Your task to perform on an android device: Open Google Maps and go to "Timeline" Image 0: 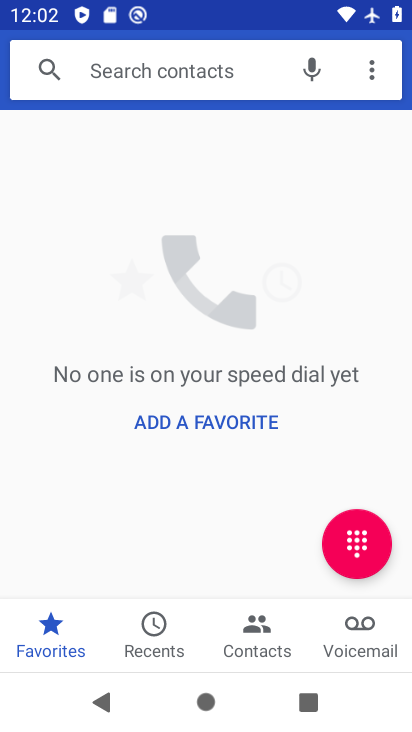
Step 0: press home button
Your task to perform on an android device: Open Google Maps and go to "Timeline" Image 1: 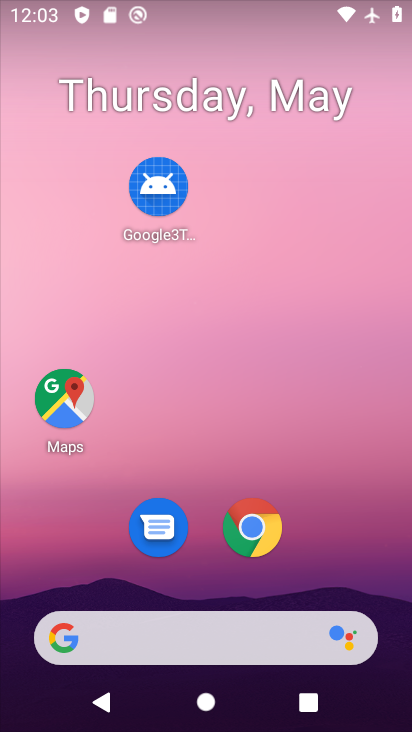
Step 1: drag from (206, 594) to (232, 3)
Your task to perform on an android device: Open Google Maps and go to "Timeline" Image 2: 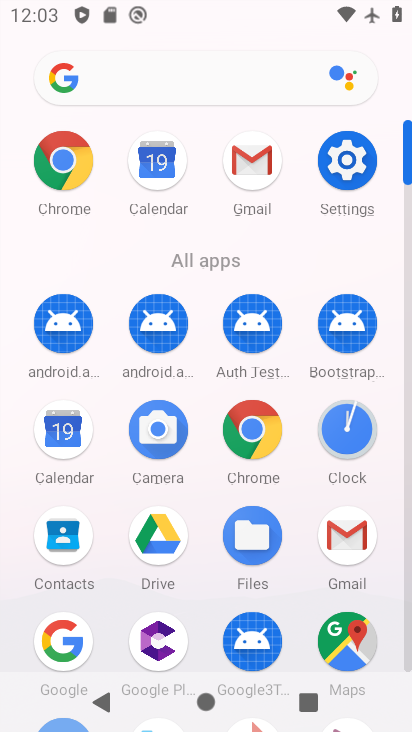
Step 2: click (333, 652)
Your task to perform on an android device: Open Google Maps and go to "Timeline" Image 3: 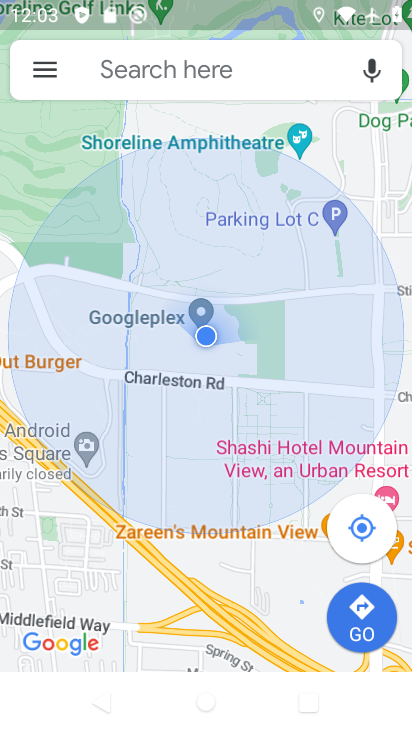
Step 3: click (43, 70)
Your task to perform on an android device: Open Google Maps and go to "Timeline" Image 4: 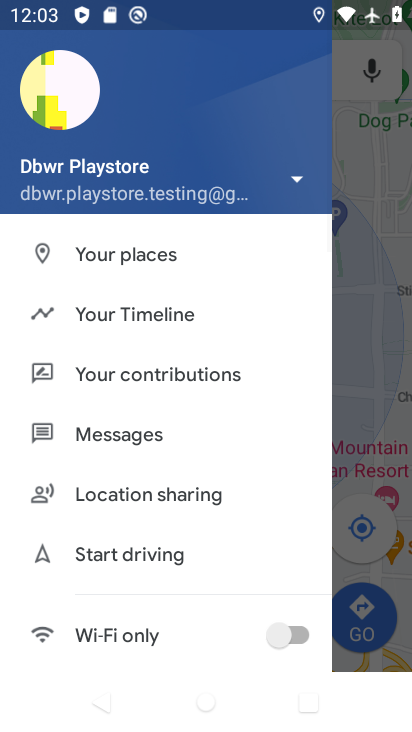
Step 4: click (126, 319)
Your task to perform on an android device: Open Google Maps and go to "Timeline" Image 5: 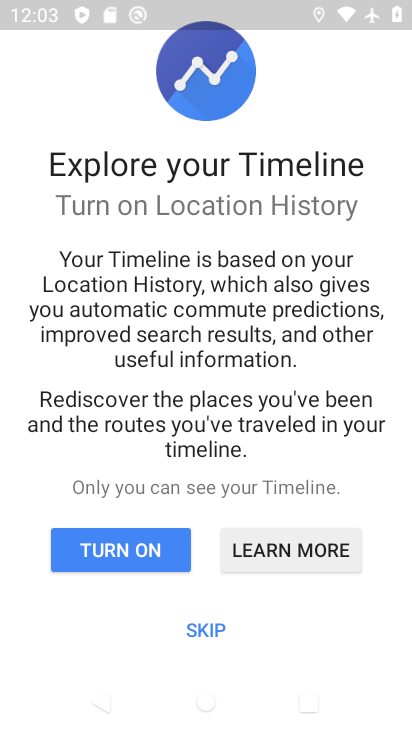
Step 5: click (143, 537)
Your task to perform on an android device: Open Google Maps and go to "Timeline" Image 6: 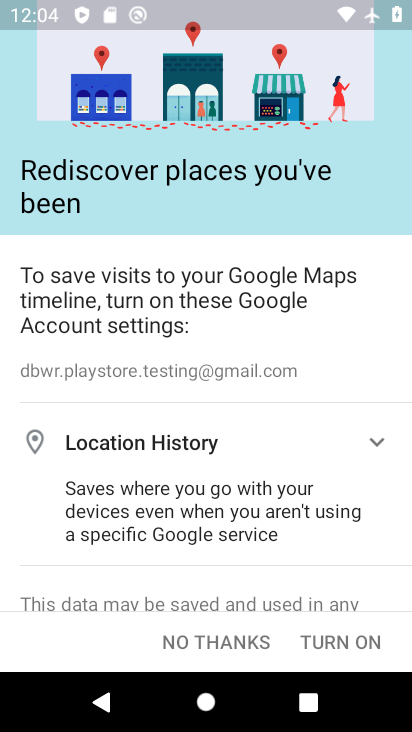
Step 6: click (351, 635)
Your task to perform on an android device: Open Google Maps and go to "Timeline" Image 7: 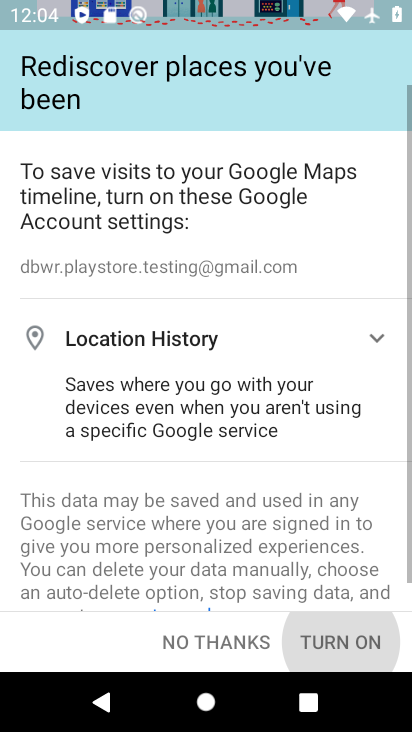
Step 7: drag from (296, 529) to (341, 127)
Your task to perform on an android device: Open Google Maps and go to "Timeline" Image 8: 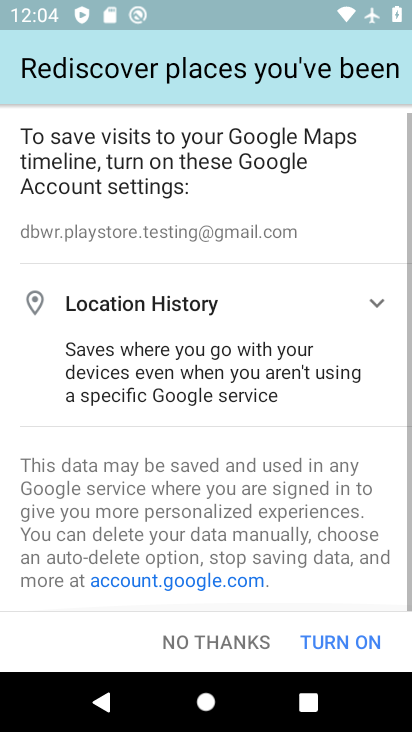
Step 8: click (347, 641)
Your task to perform on an android device: Open Google Maps and go to "Timeline" Image 9: 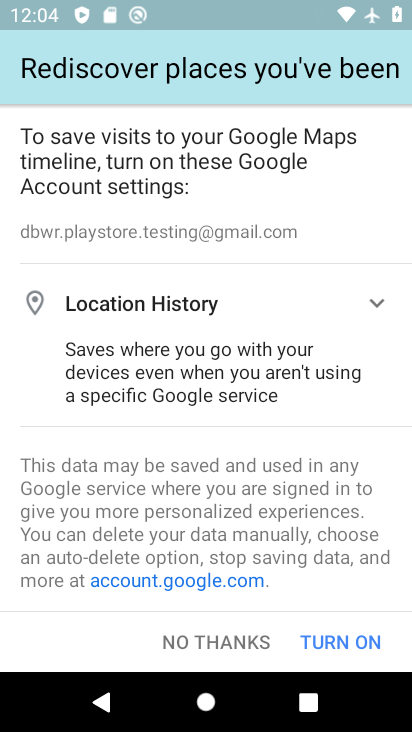
Step 9: click (331, 643)
Your task to perform on an android device: Open Google Maps and go to "Timeline" Image 10: 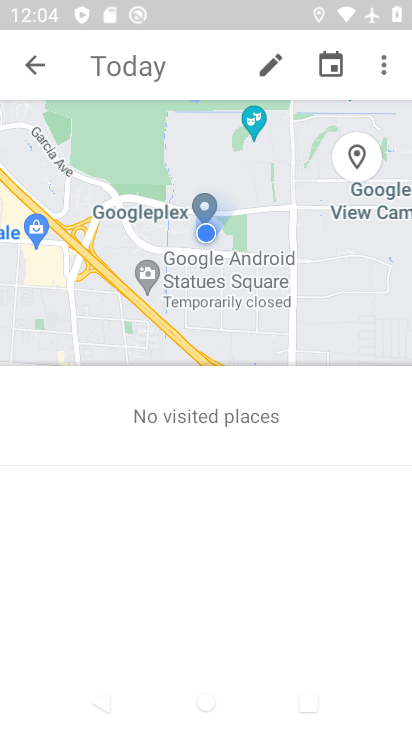
Step 10: task complete